Your task to perform on an android device: add a label to a message in the gmail app Image 0: 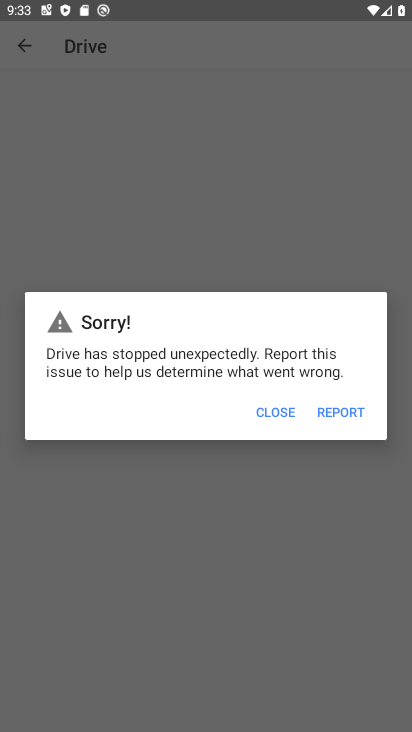
Step 0: press home button
Your task to perform on an android device: add a label to a message in the gmail app Image 1: 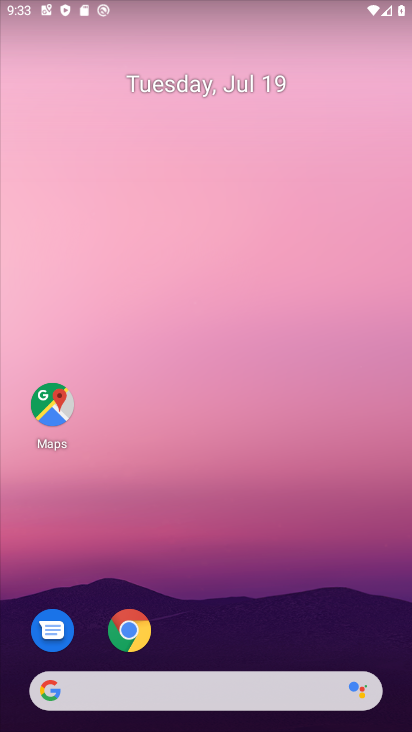
Step 1: drag from (216, 670) to (208, 134)
Your task to perform on an android device: add a label to a message in the gmail app Image 2: 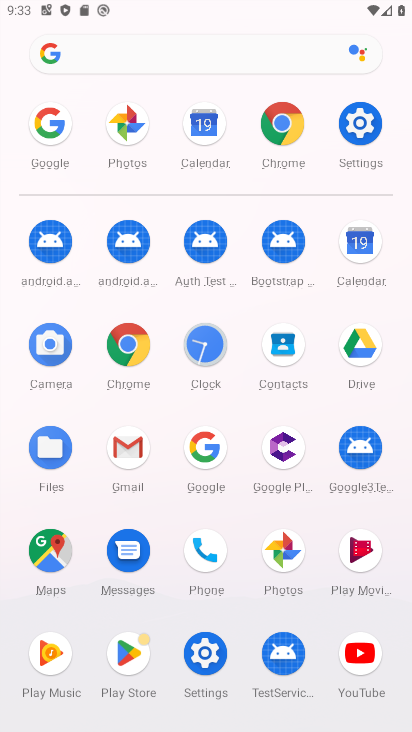
Step 2: click (128, 447)
Your task to perform on an android device: add a label to a message in the gmail app Image 3: 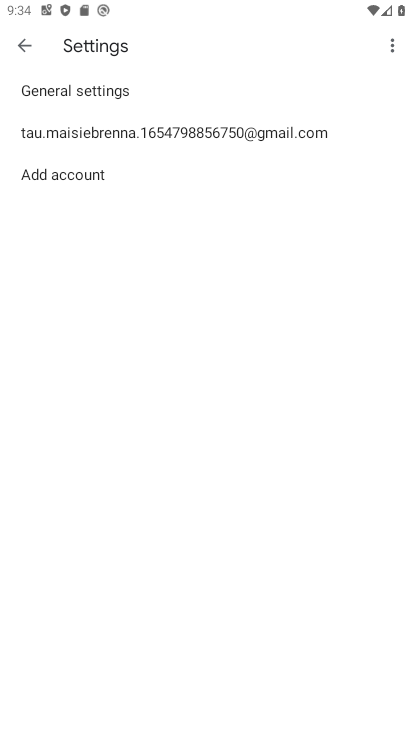
Step 3: task complete